Your task to perform on an android device: Go to Yahoo.com Image 0: 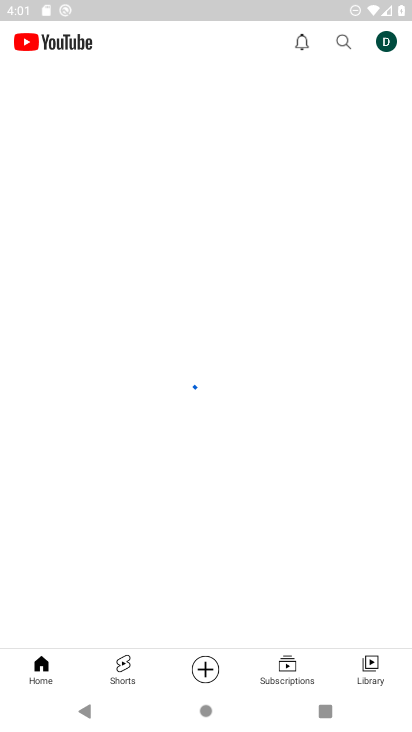
Step 0: press home button
Your task to perform on an android device: Go to Yahoo.com Image 1: 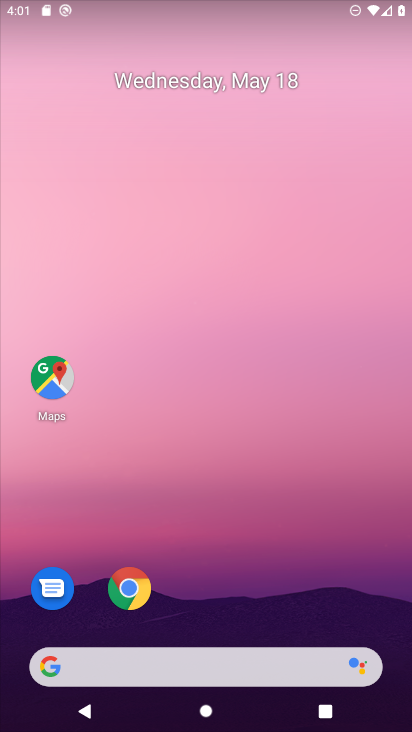
Step 1: click (142, 586)
Your task to perform on an android device: Go to Yahoo.com Image 2: 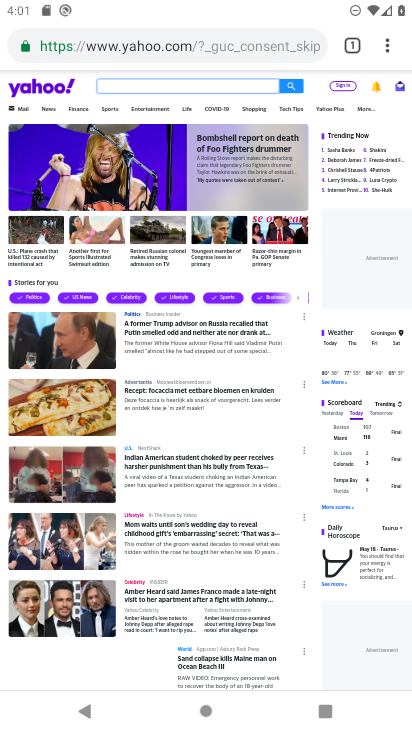
Step 2: task complete